Your task to perform on an android device: check android version Image 0: 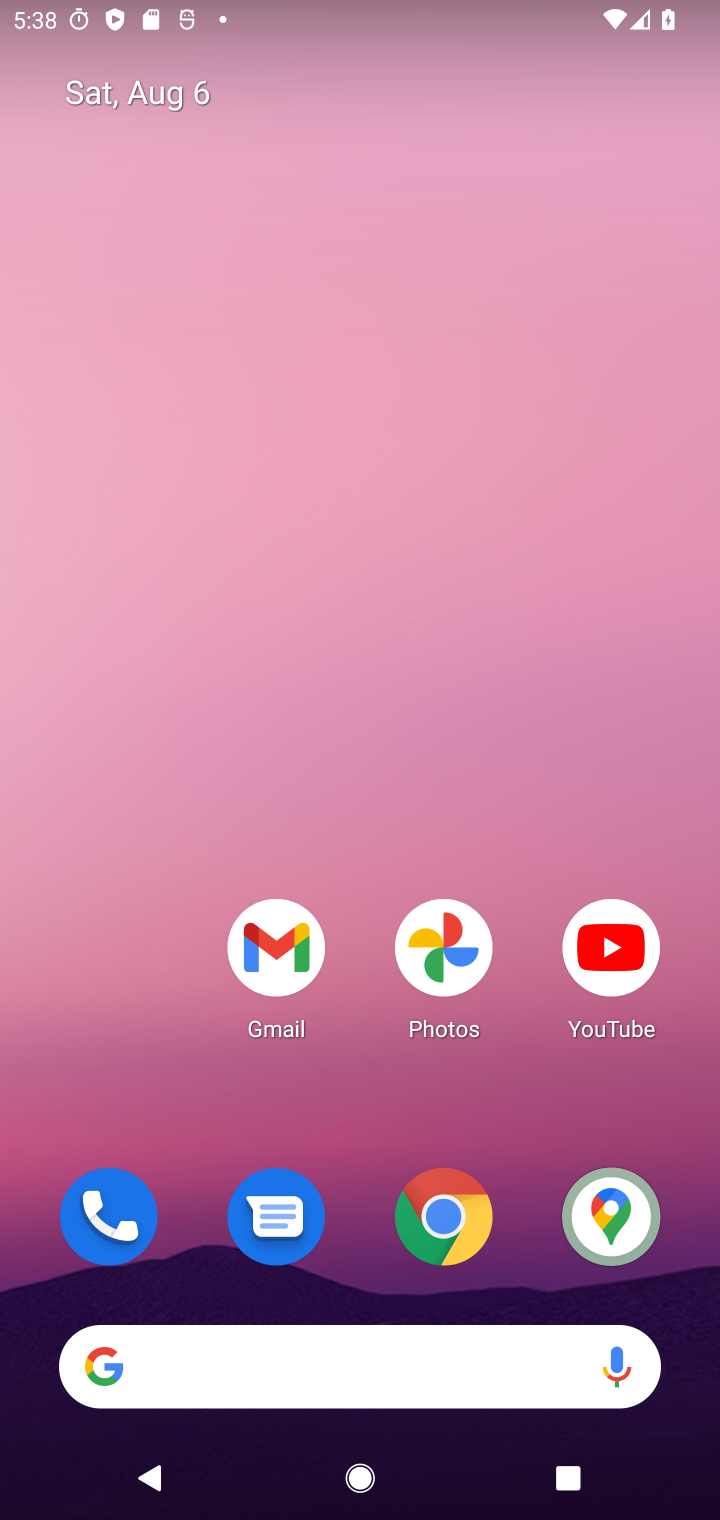
Step 0: drag from (349, 1120) to (641, 7)
Your task to perform on an android device: check android version Image 1: 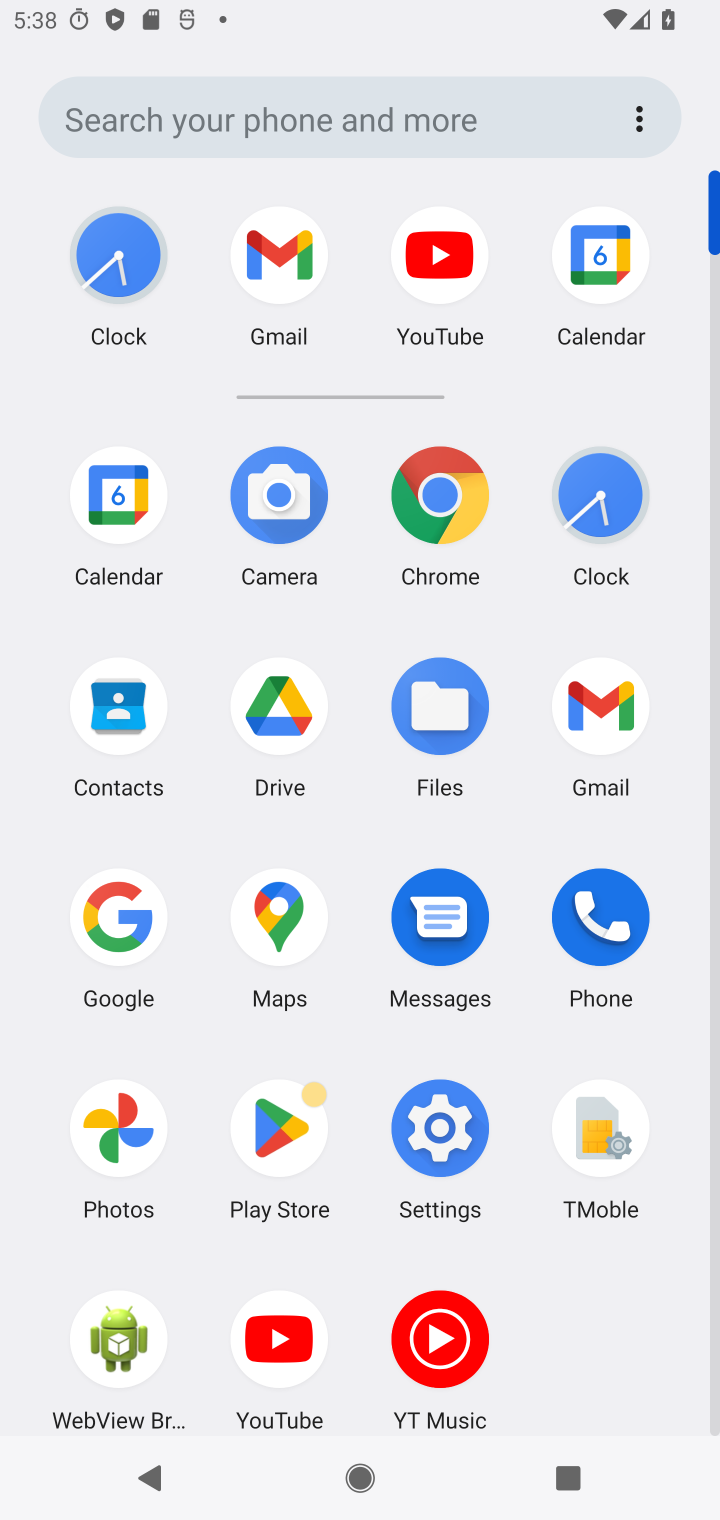
Step 1: click (461, 1134)
Your task to perform on an android device: check android version Image 2: 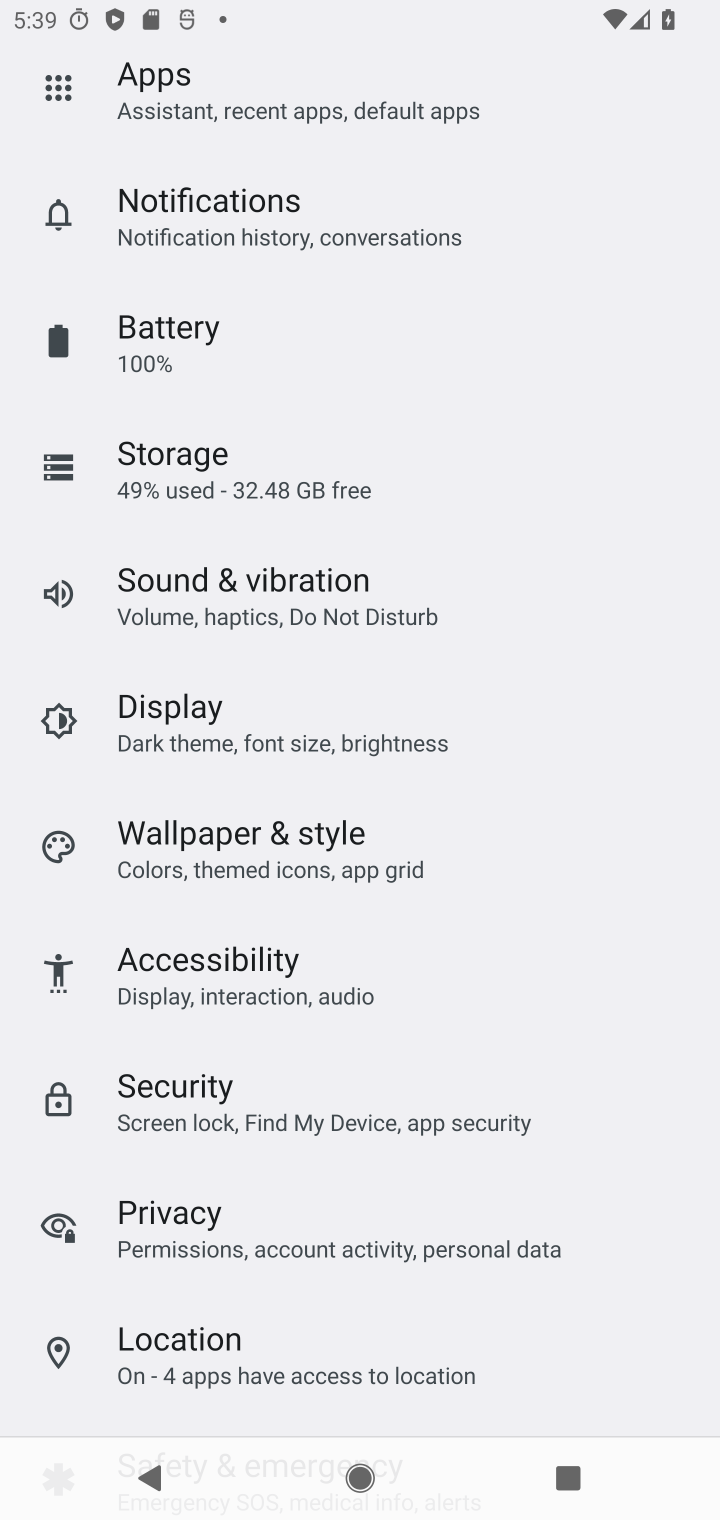
Step 2: drag from (464, 1300) to (296, 34)
Your task to perform on an android device: check android version Image 3: 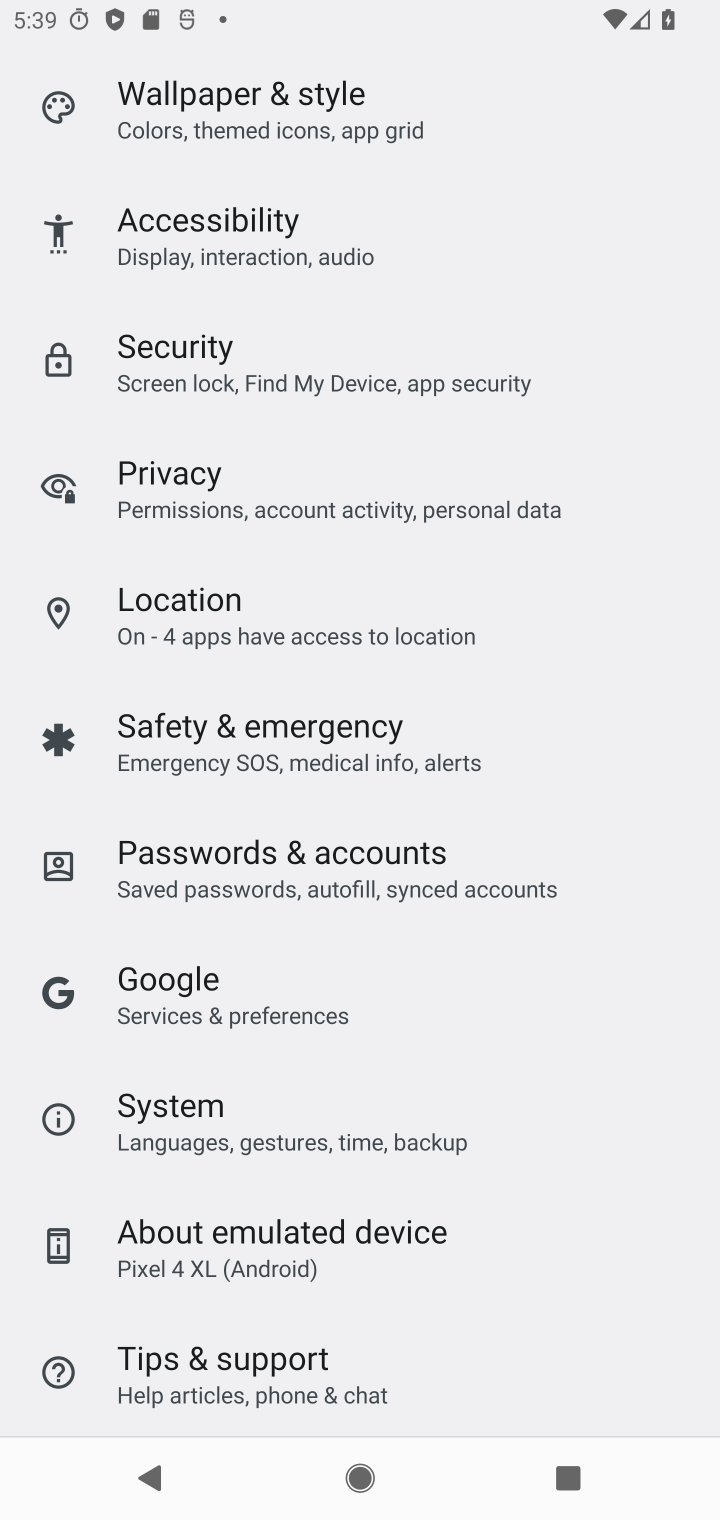
Step 3: click (242, 1232)
Your task to perform on an android device: check android version Image 4: 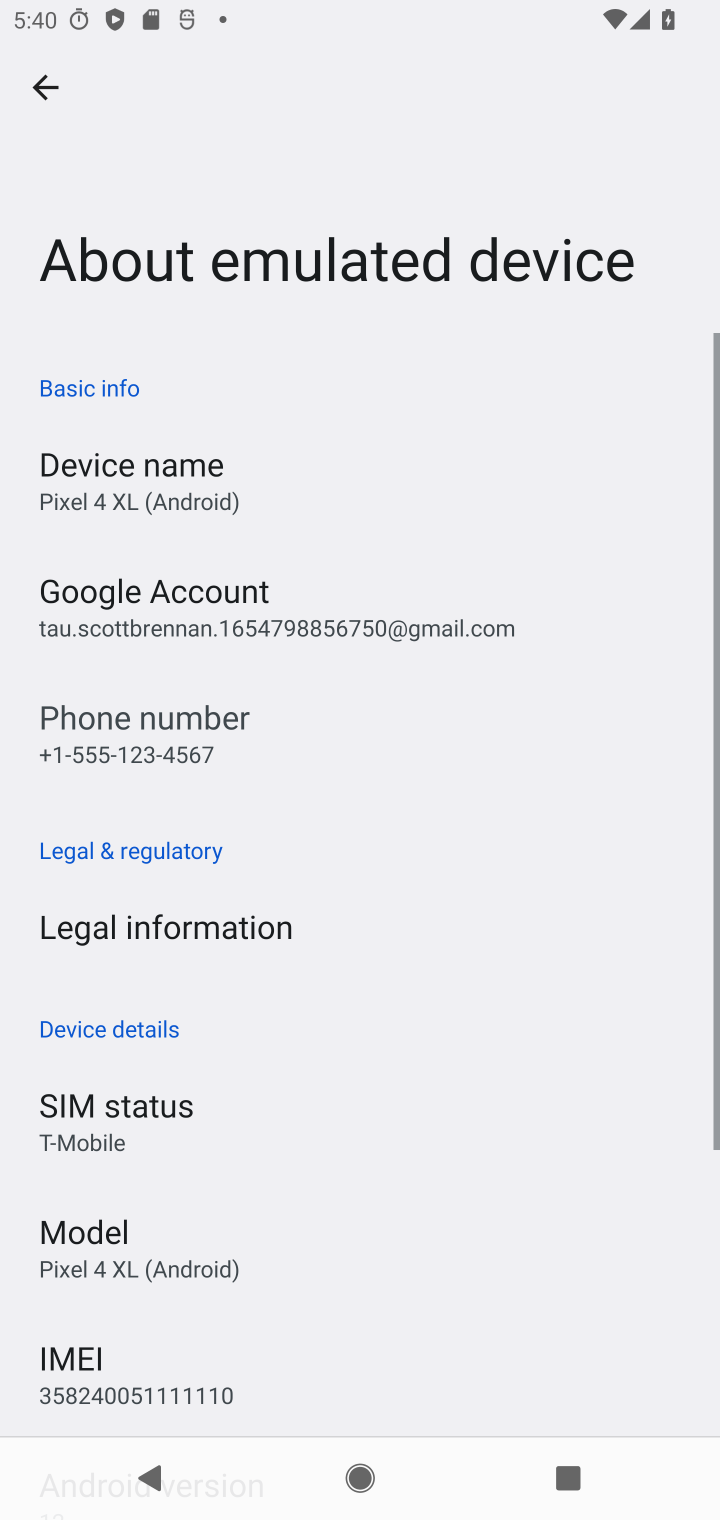
Step 4: drag from (401, 1226) to (510, 733)
Your task to perform on an android device: check android version Image 5: 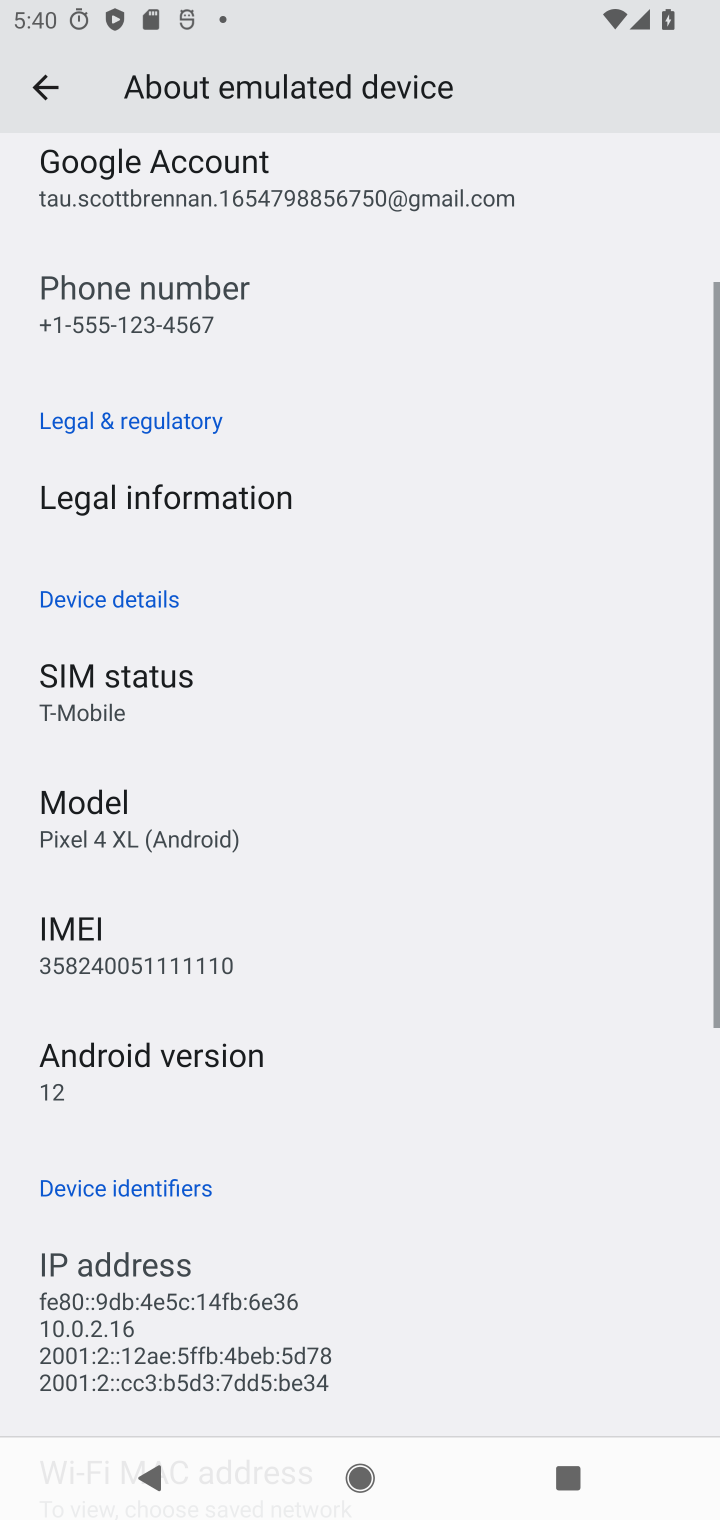
Step 5: click (216, 1075)
Your task to perform on an android device: check android version Image 6: 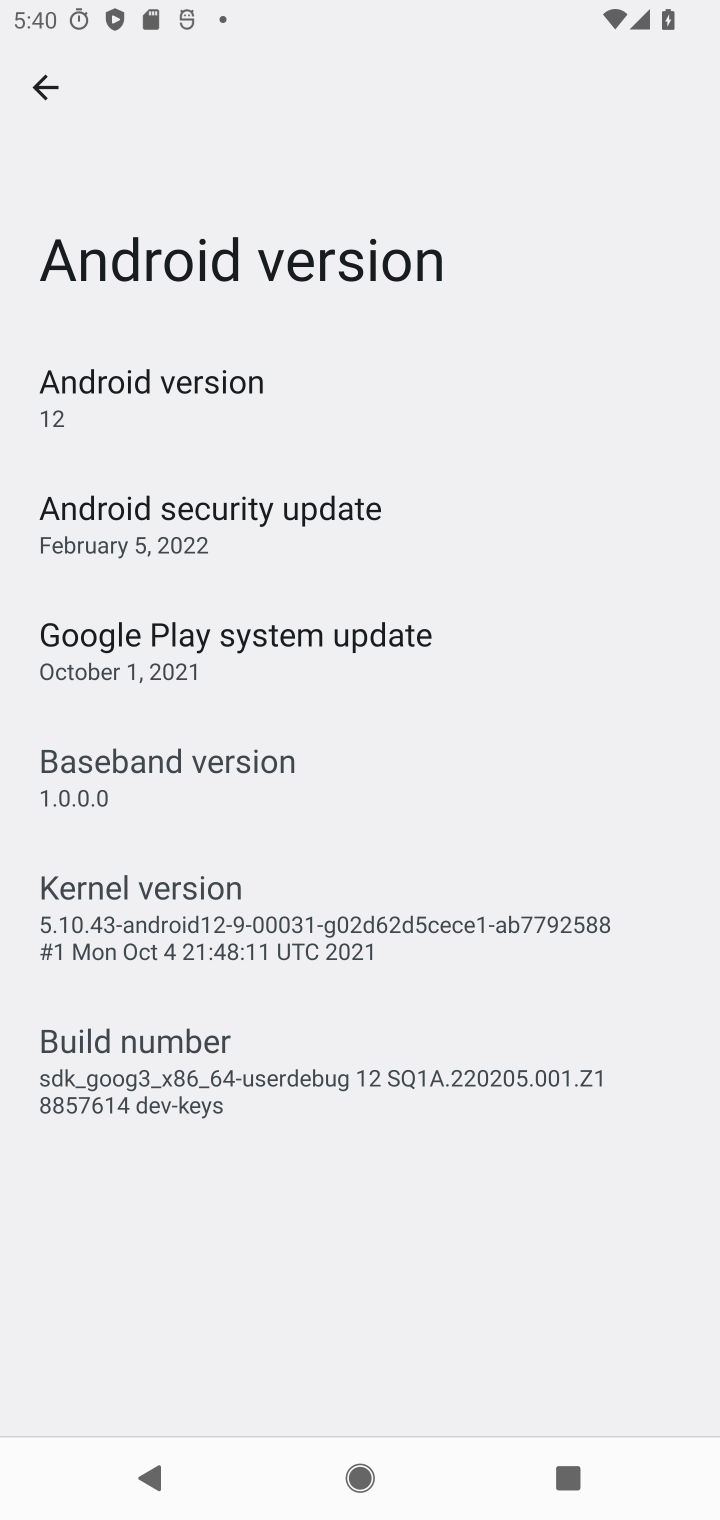
Step 6: task complete